Your task to perform on an android device: When is my next meeting? Image 0: 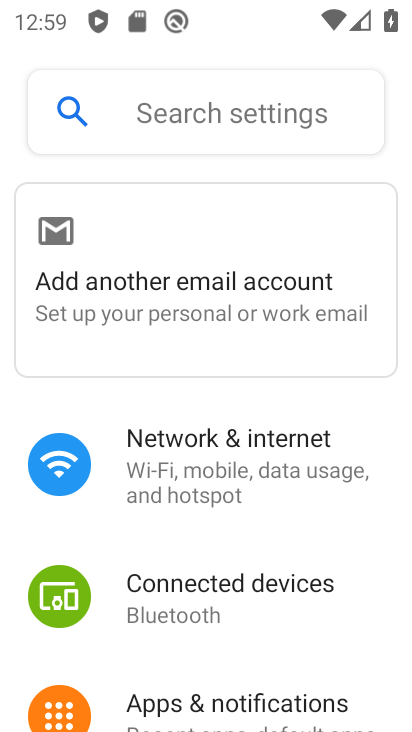
Step 0: press home button
Your task to perform on an android device: When is my next meeting? Image 1: 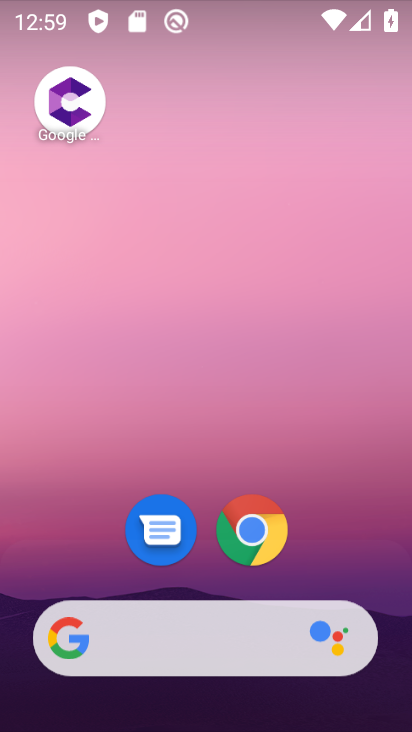
Step 1: drag from (332, 474) to (322, 212)
Your task to perform on an android device: When is my next meeting? Image 2: 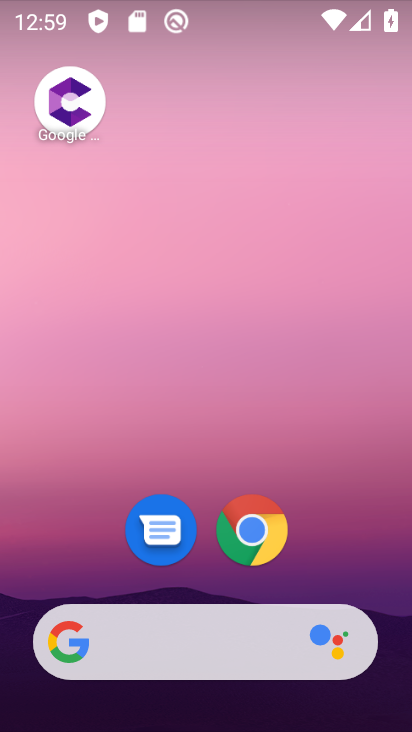
Step 2: drag from (332, 535) to (295, 58)
Your task to perform on an android device: When is my next meeting? Image 3: 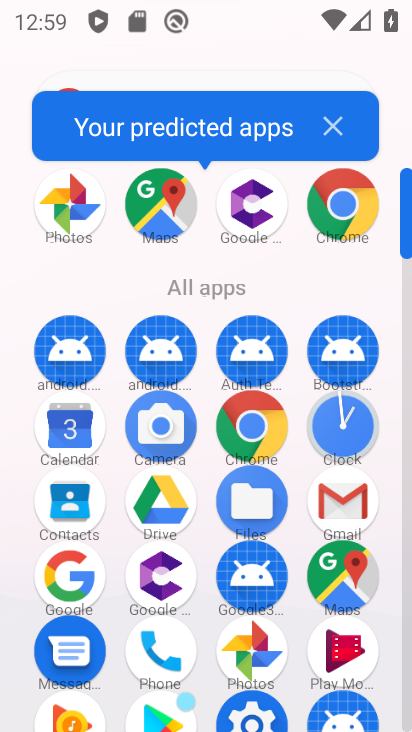
Step 3: click (81, 433)
Your task to perform on an android device: When is my next meeting? Image 4: 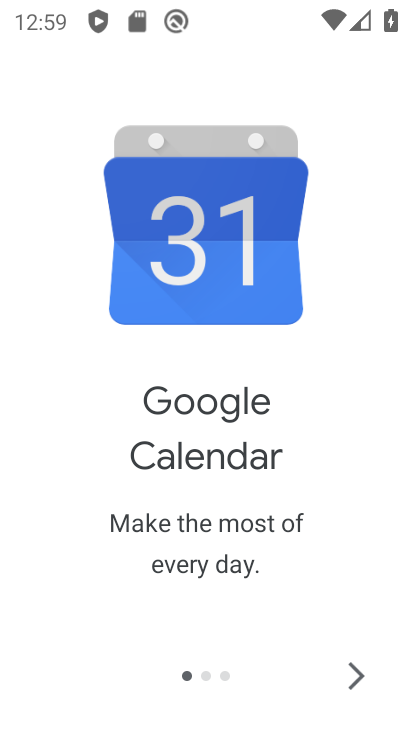
Step 4: click (351, 680)
Your task to perform on an android device: When is my next meeting? Image 5: 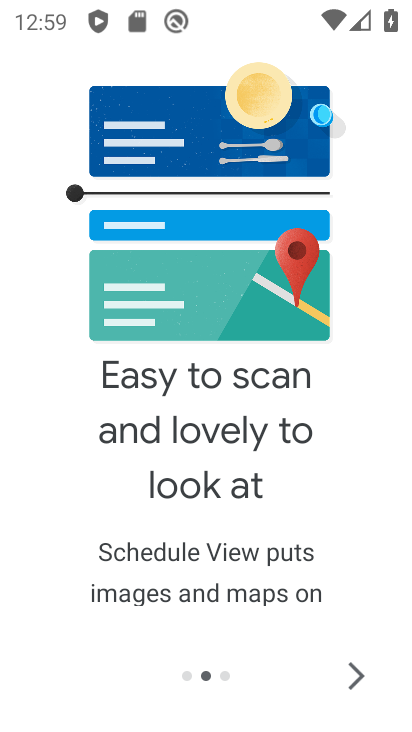
Step 5: click (351, 680)
Your task to perform on an android device: When is my next meeting? Image 6: 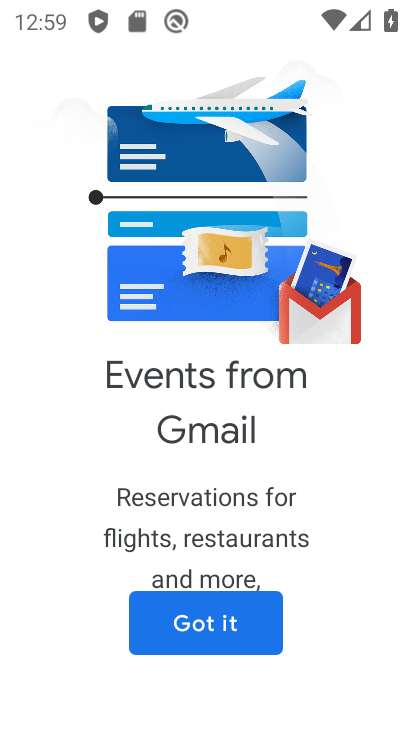
Step 6: click (251, 624)
Your task to perform on an android device: When is my next meeting? Image 7: 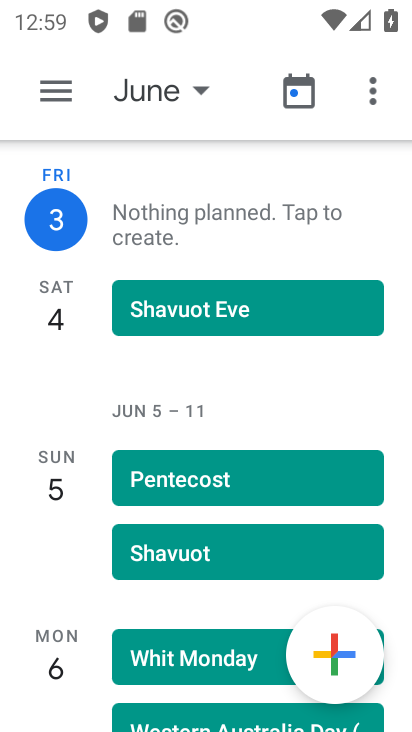
Step 7: click (52, 89)
Your task to perform on an android device: When is my next meeting? Image 8: 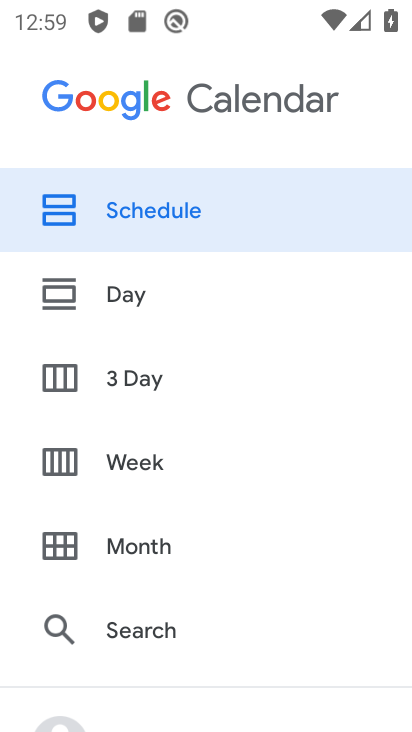
Step 8: click (171, 215)
Your task to perform on an android device: When is my next meeting? Image 9: 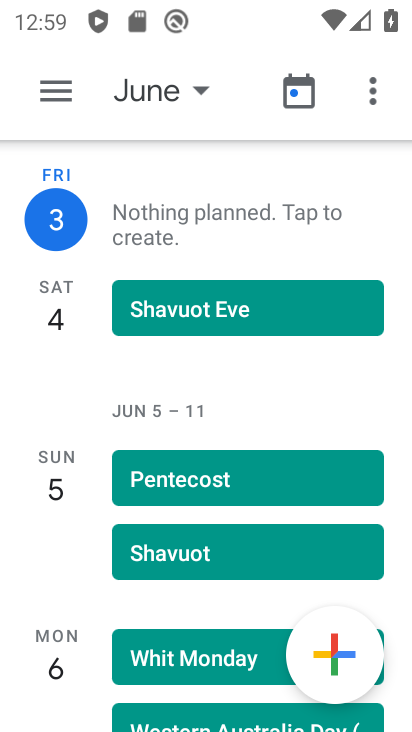
Step 9: task complete